Your task to perform on an android device: Search for Italian restaurants on Maps Image 0: 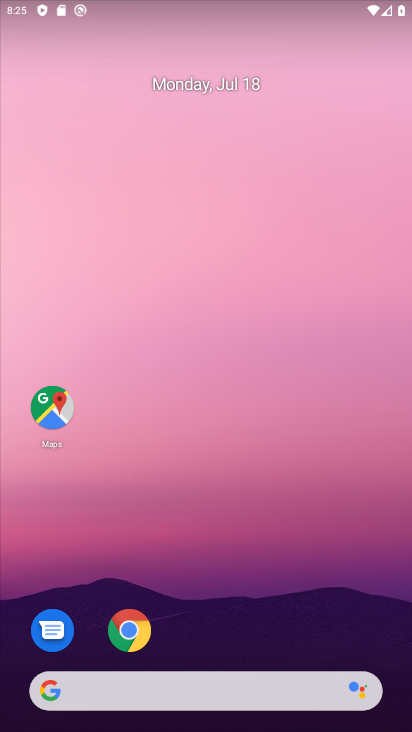
Step 0: drag from (188, 628) to (140, 35)
Your task to perform on an android device: Search for Italian restaurants on Maps Image 1: 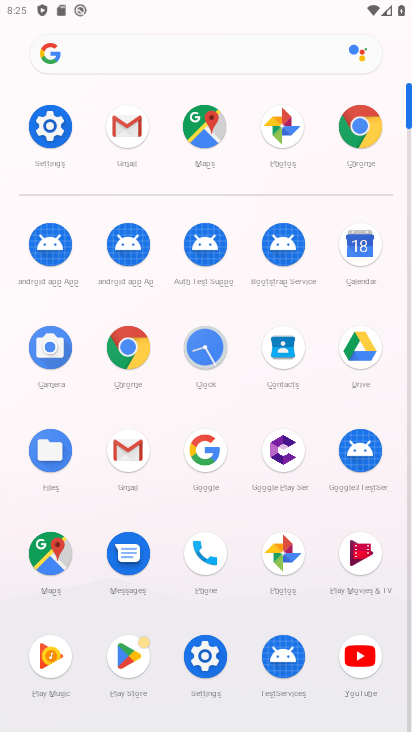
Step 1: click (199, 109)
Your task to perform on an android device: Search for Italian restaurants on Maps Image 2: 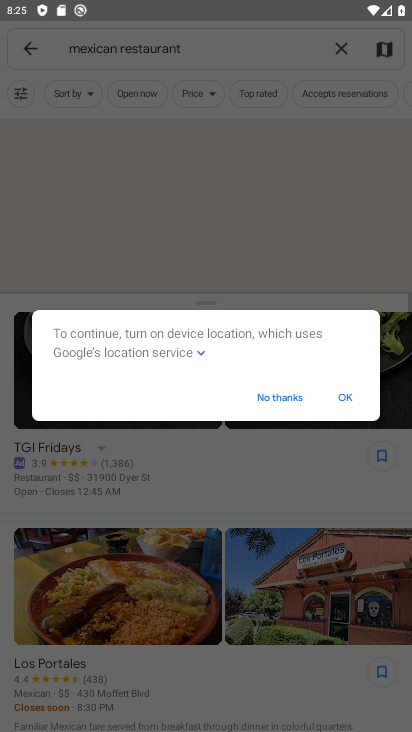
Step 2: click (352, 39)
Your task to perform on an android device: Search for Italian restaurants on Maps Image 3: 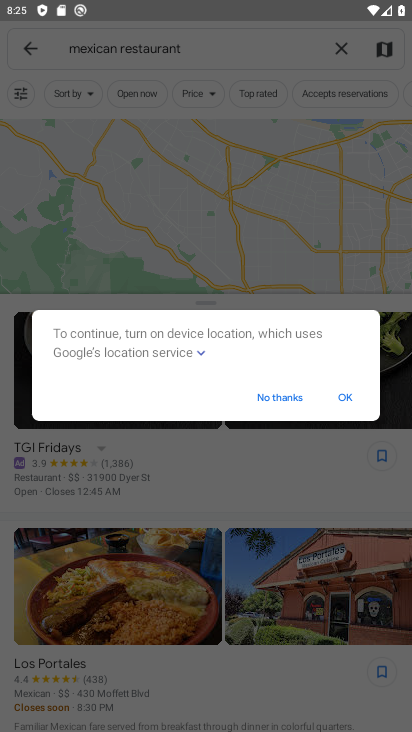
Step 3: click (333, 396)
Your task to perform on an android device: Search for Italian restaurants on Maps Image 4: 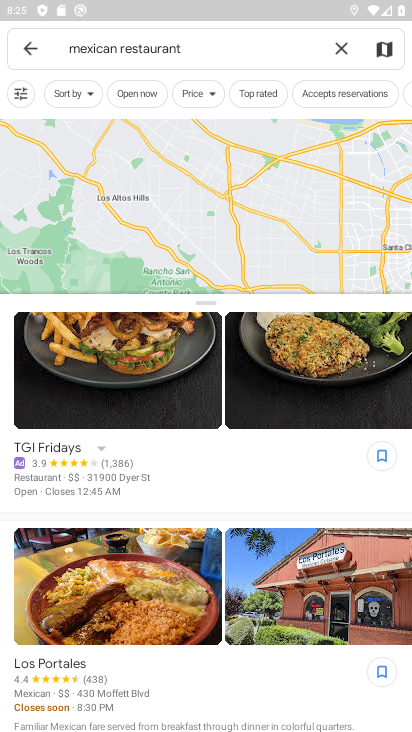
Step 4: click (334, 50)
Your task to perform on an android device: Search for Italian restaurants on Maps Image 5: 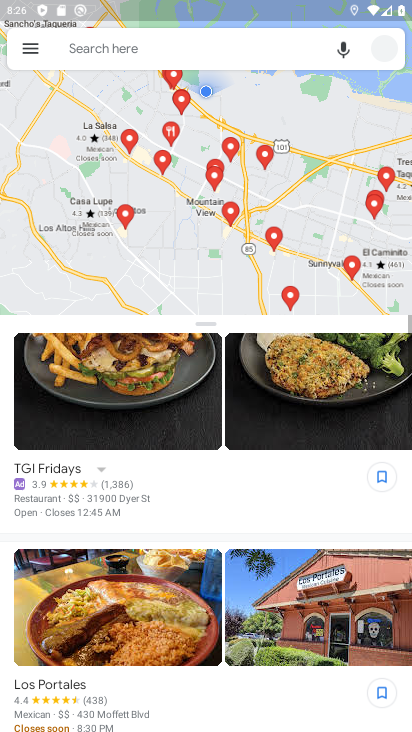
Step 5: click (332, 53)
Your task to perform on an android device: Search for Italian restaurants on Maps Image 6: 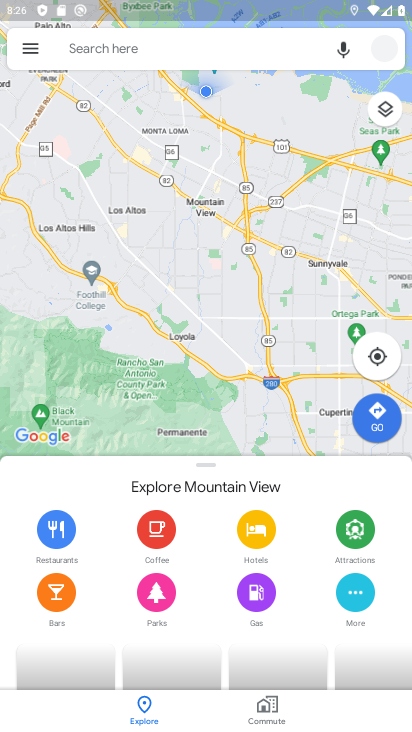
Step 6: click (271, 45)
Your task to perform on an android device: Search for Italian restaurants on Maps Image 7: 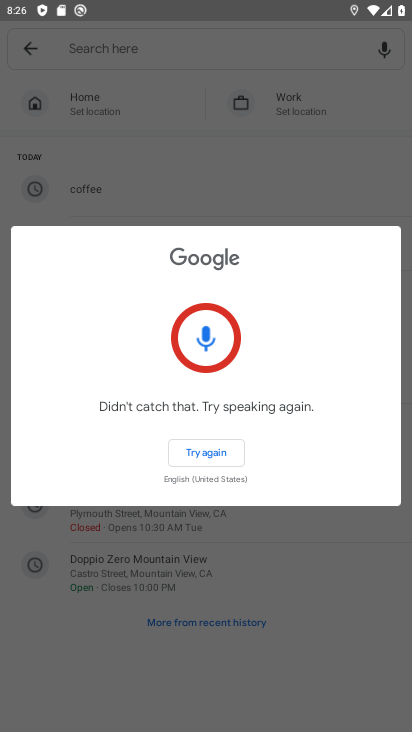
Step 7: click (306, 566)
Your task to perform on an android device: Search for Italian restaurants on Maps Image 8: 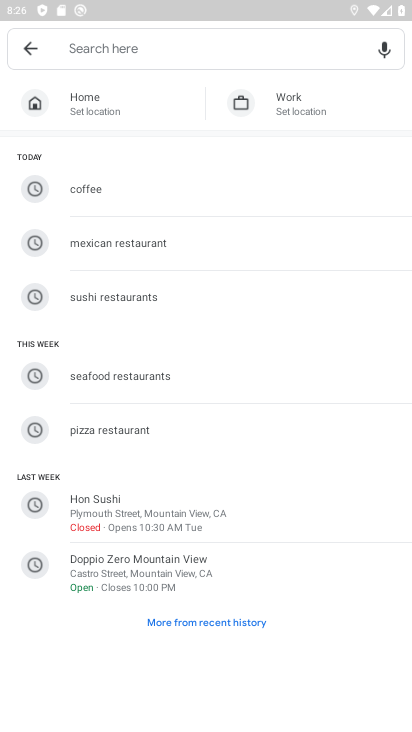
Step 8: click (140, 249)
Your task to perform on an android device: Search for Italian restaurants on Maps Image 9: 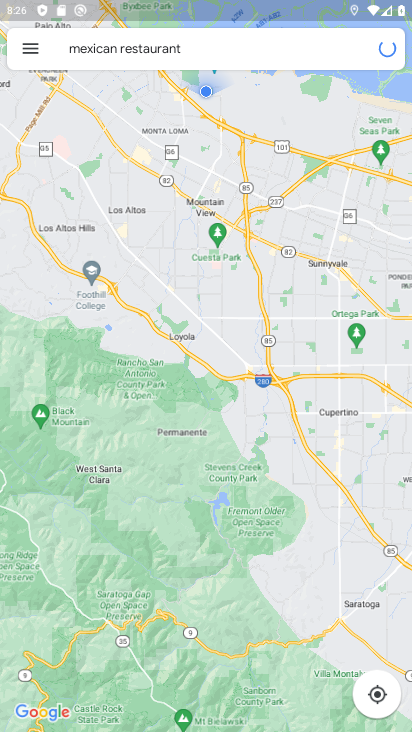
Step 9: click (262, 43)
Your task to perform on an android device: Search for Italian restaurants on Maps Image 10: 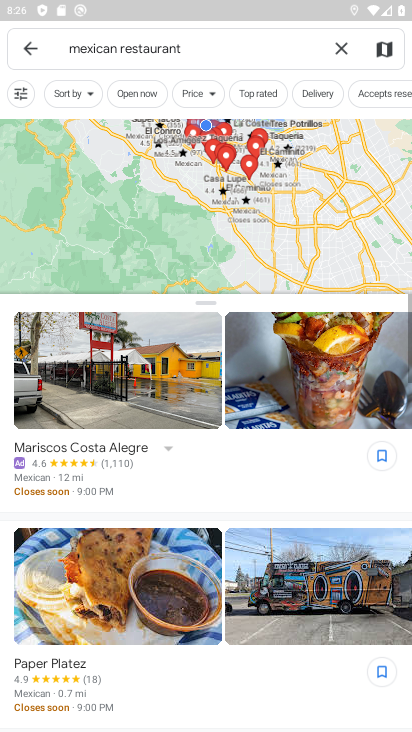
Step 10: click (340, 49)
Your task to perform on an android device: Search for Italian restaurants on Maps Image 11: 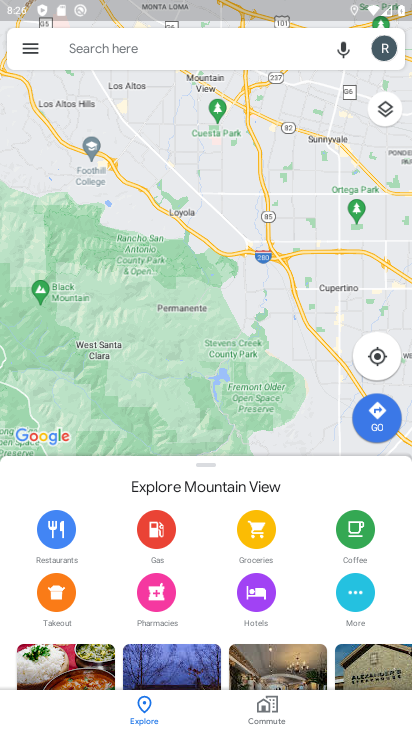
Step 11: click (250, 33)
Your task to perform on an android device: Search for Italian restaurants on Maps Image 12: 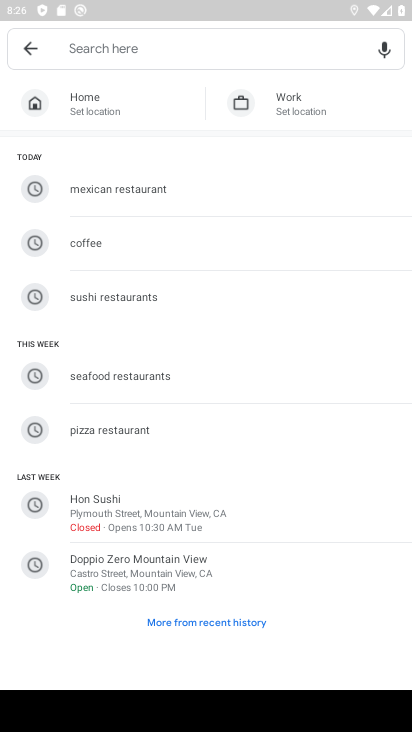
Step 12: type "Italian restaurants "
Your task to perform on an android device: Search for Italian restaurants on Maps Image 13: 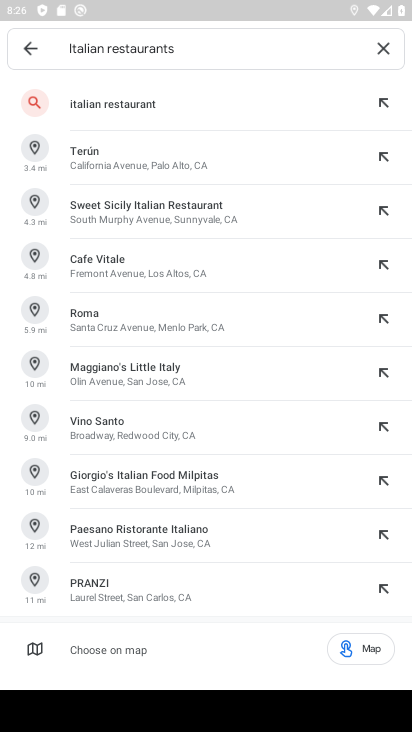
Step 13: click (116, 96)
Your task to perform on an android device: Search for Italian restaurants on Maps Image 14: 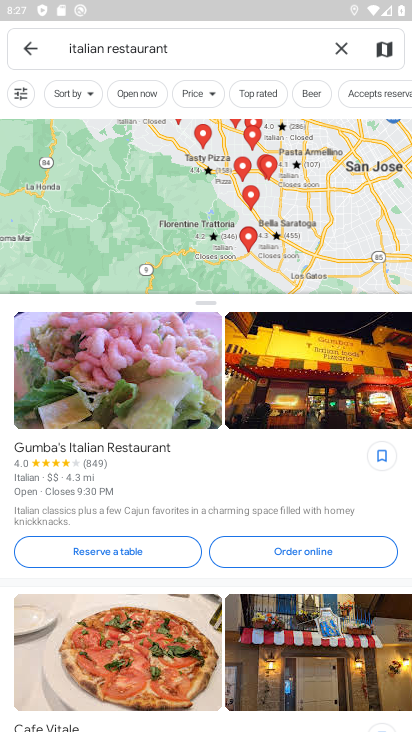
Step 14: task complete